Your task to perform on an android device: change the clock display to show seconds Image 0: 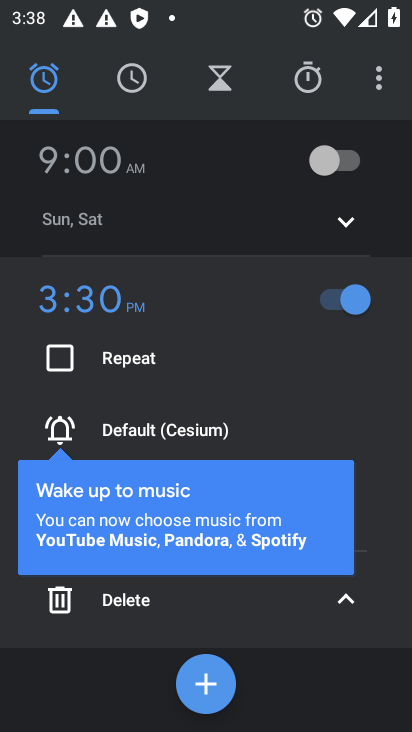
Step 0: press home button
Your task to perform on an android device: change the clock display to show seconds Image 1: 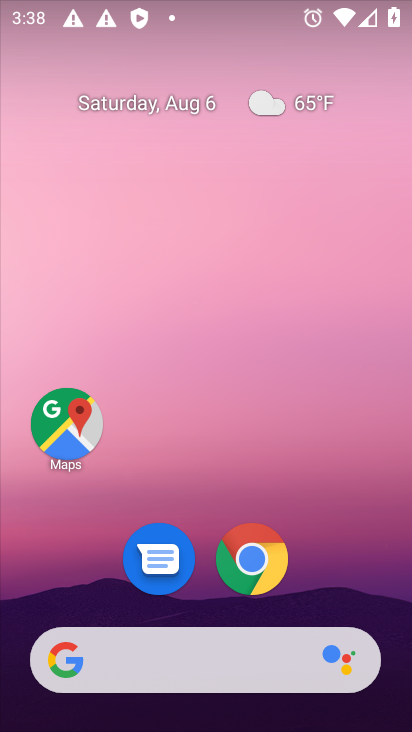
Step 1: drag from (307, 520) to (323, 45)
Your task to perform on an android device: change the clock display to show seconds Image 2: 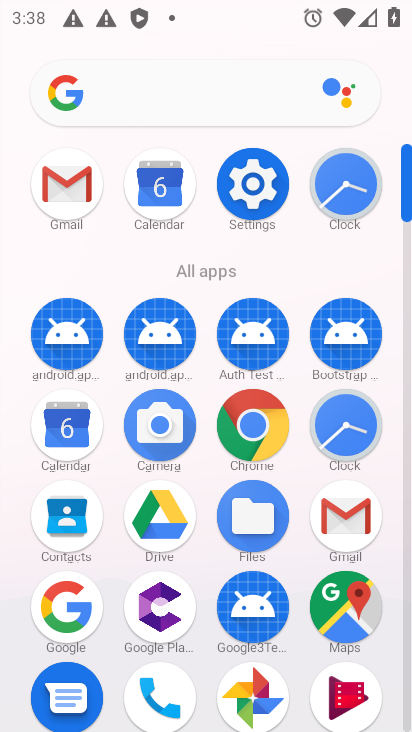
Step 2: click (352, 203)
Your task to perform on an android device: change the clock display to show seconds Image 3: 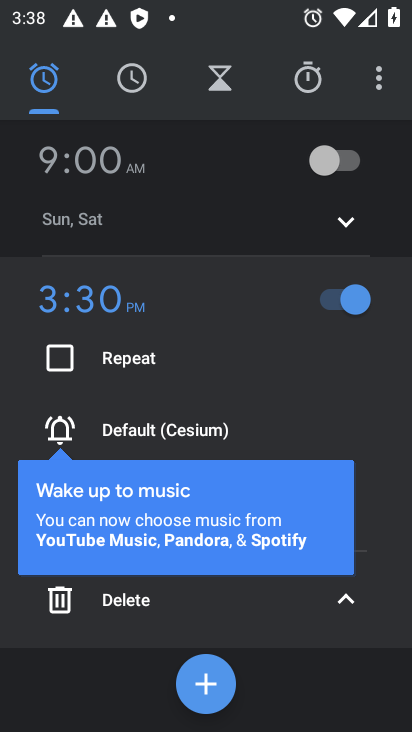
Step 3: click (128, 80)
Your task to perform on an android device: change the clock display to show seconds Image 4: 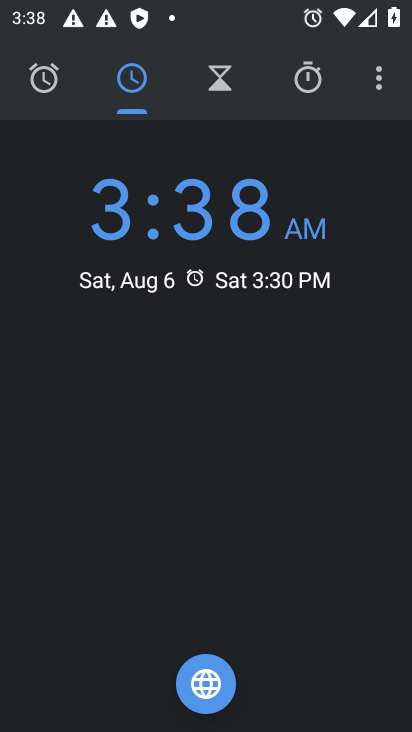
Step 4: click (378, 89)
Your task to perform on an android device: change the clock display to show seconds Image 5: 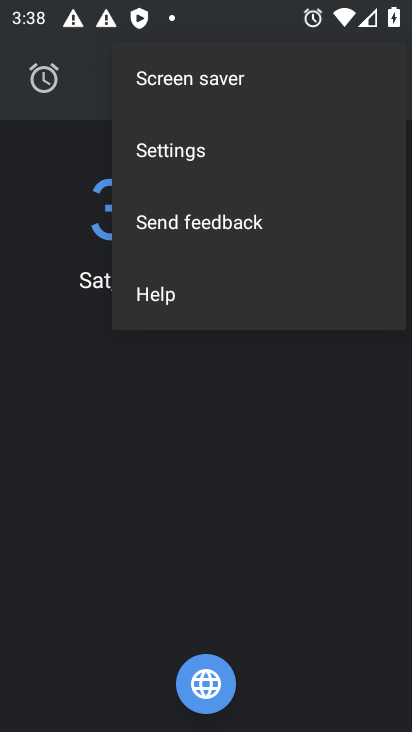
Step 5: click (216, 150)
Your task to perform on an android device: change the clock display to show seconds Image 6: 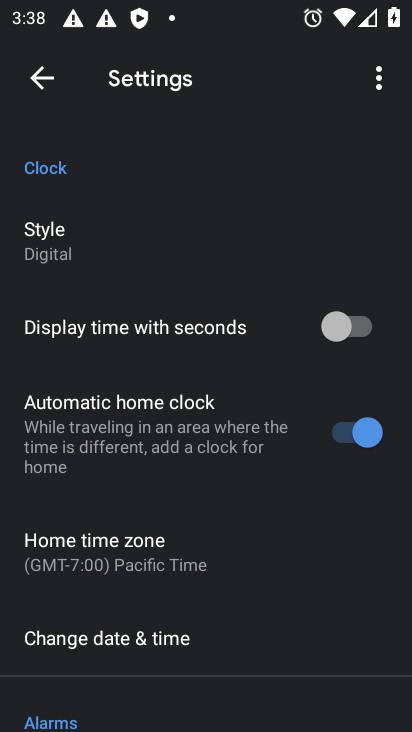
Step 6: click (354, 328)
Your task to perform on an android device: change the clock display to show seconds Image 7: 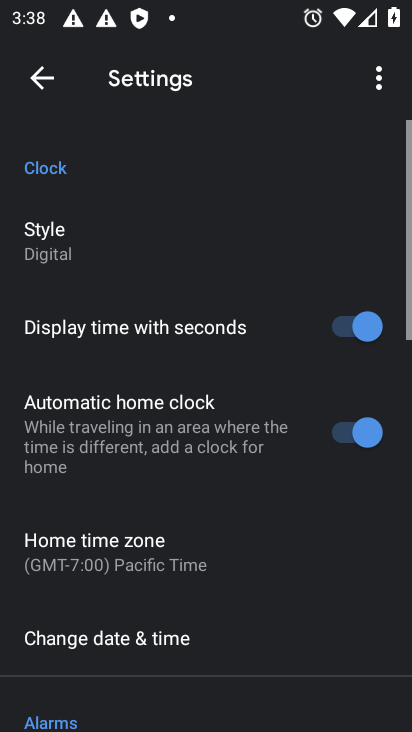
Step 7: click (53, 88)
Your task to perform on an android device: change the clock display to show seconds Image 8: 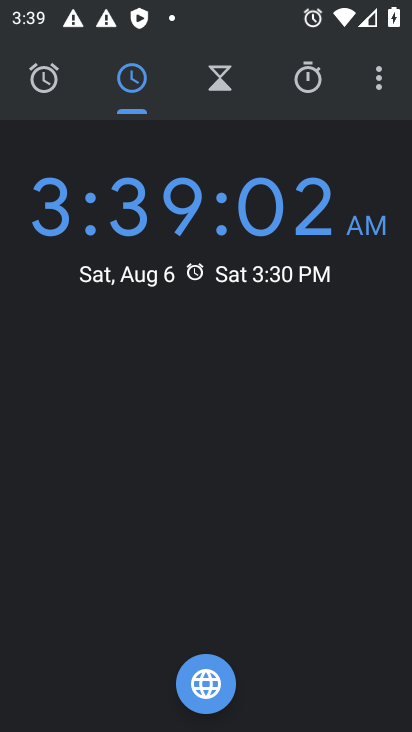
Step 8: task complete